Your task to perform on an android device: Find the nearest electronics store that's open tomorrow Image 0: 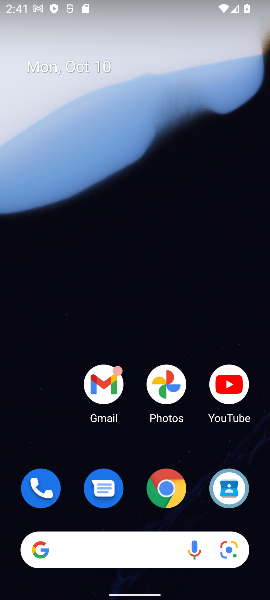
Step 0: click (109, 547)
Your task to perform on an android device: Find the nearest electronics store that's open tomorrow Image 1: 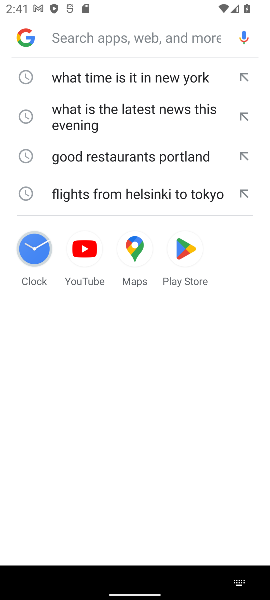
Step 1: type "Find the nearest electronics store that's open tomorrow"
Your task to perform on an android device: Find the nearest electronics store that's open tomorrow Image 2: 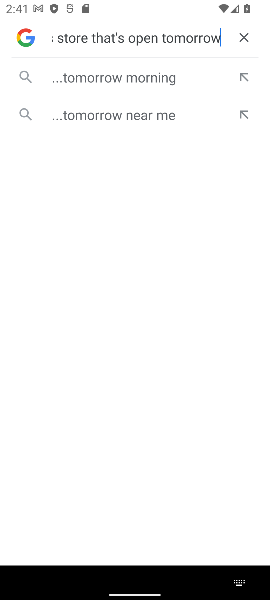
Step 2: click (124, 85)
Your task to perform on an android device: Find the nearest electronics store that's open tomorrow Image 3: 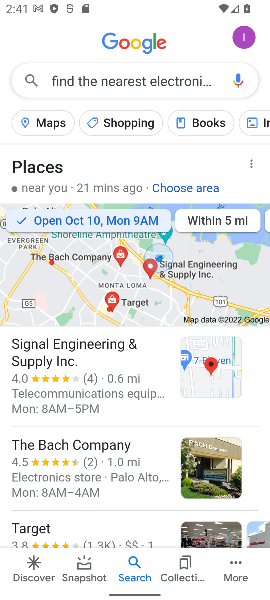
Step 3: task complete